Your task to perform on an android device: Turn on the flashlight Image 0: 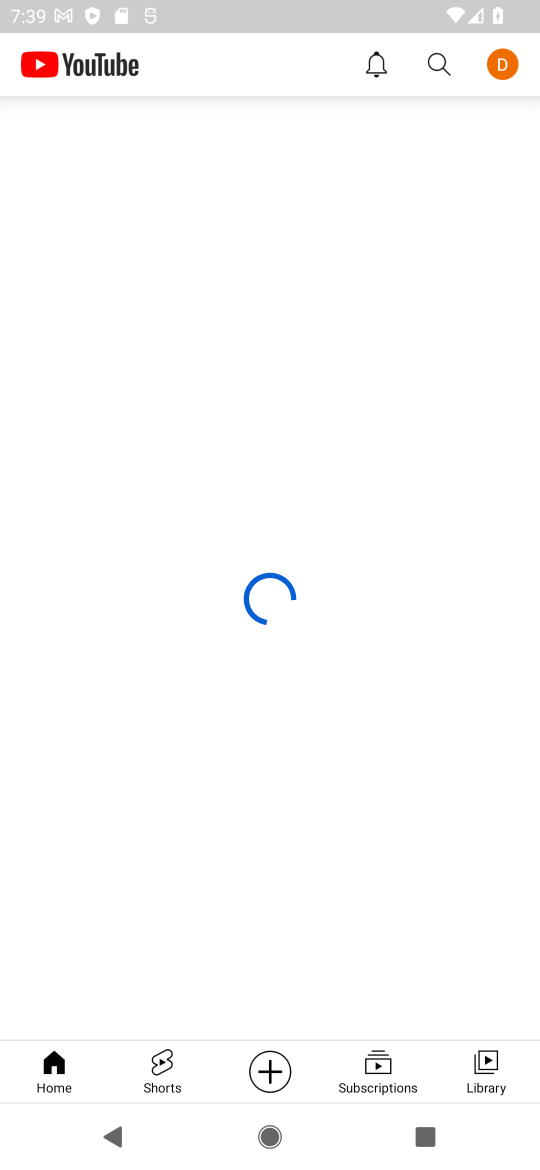
Step 0: press home button
Your task to perform on an android device: Turn on the flashlight Image 1: 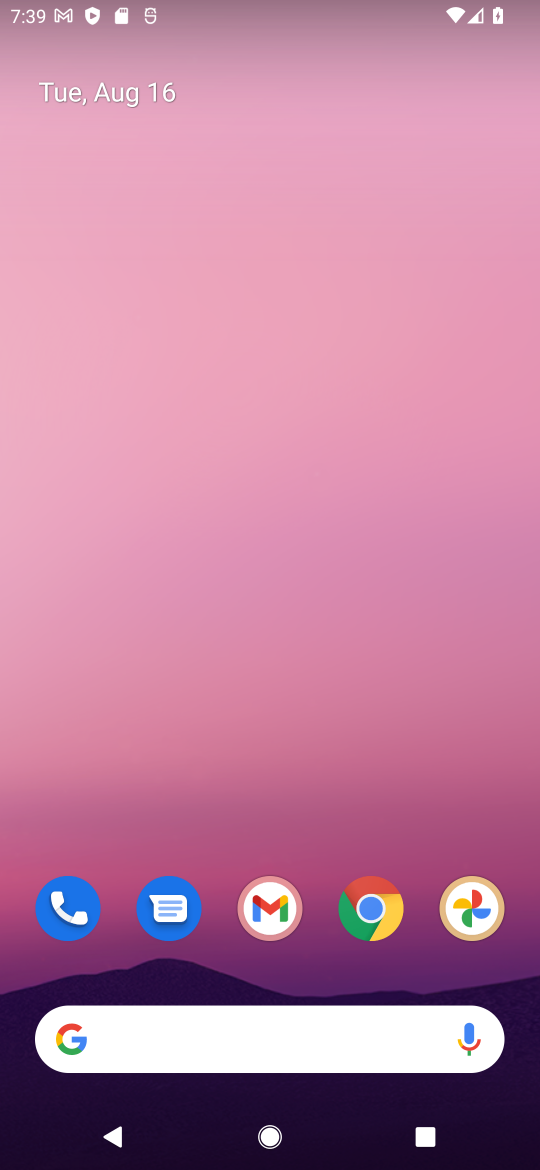
Step 1: drag from (220, 980) to (220, 180)
Your task to perform on an android device: Turn on the flashlight Image 2: 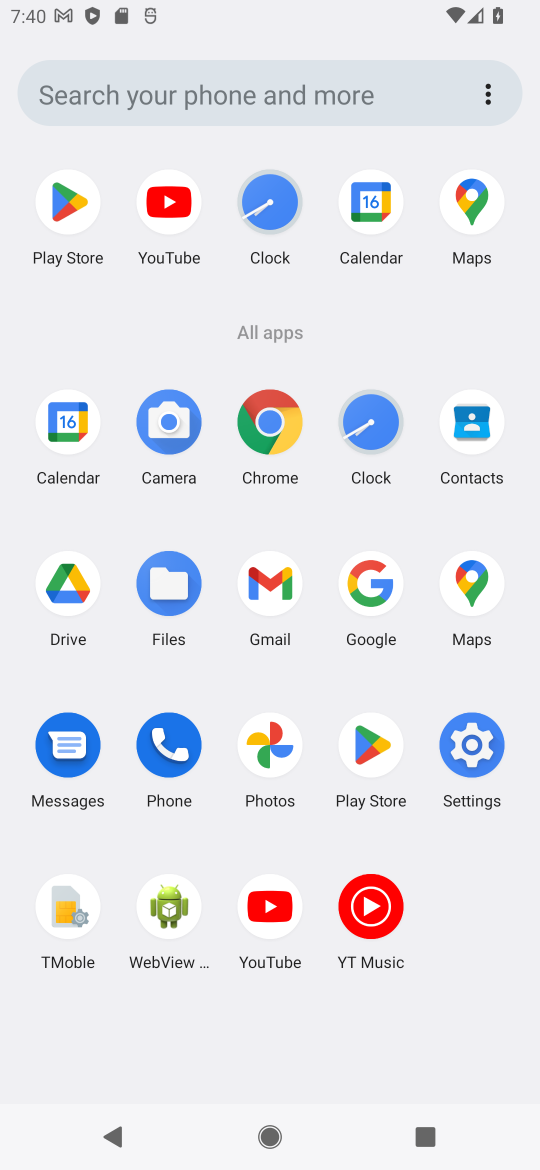
Step 2: click (472, 761)
Your task to perform on an android device: Turn on the flashlight Image 3: 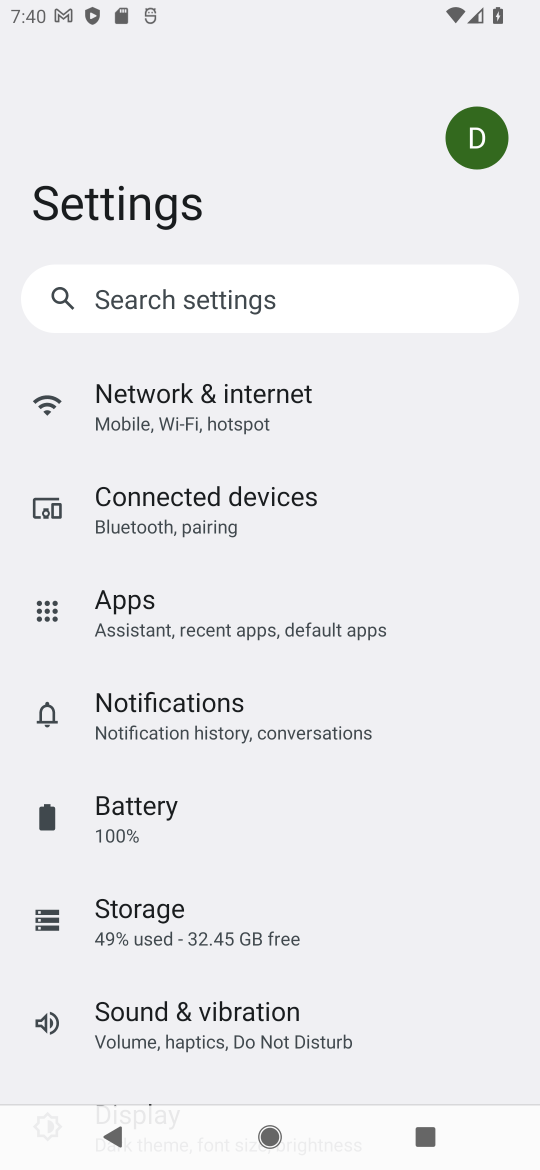
Step 3: click (472, 761)
Your task to perform on an android device: Turn on the flashlight Image 4: 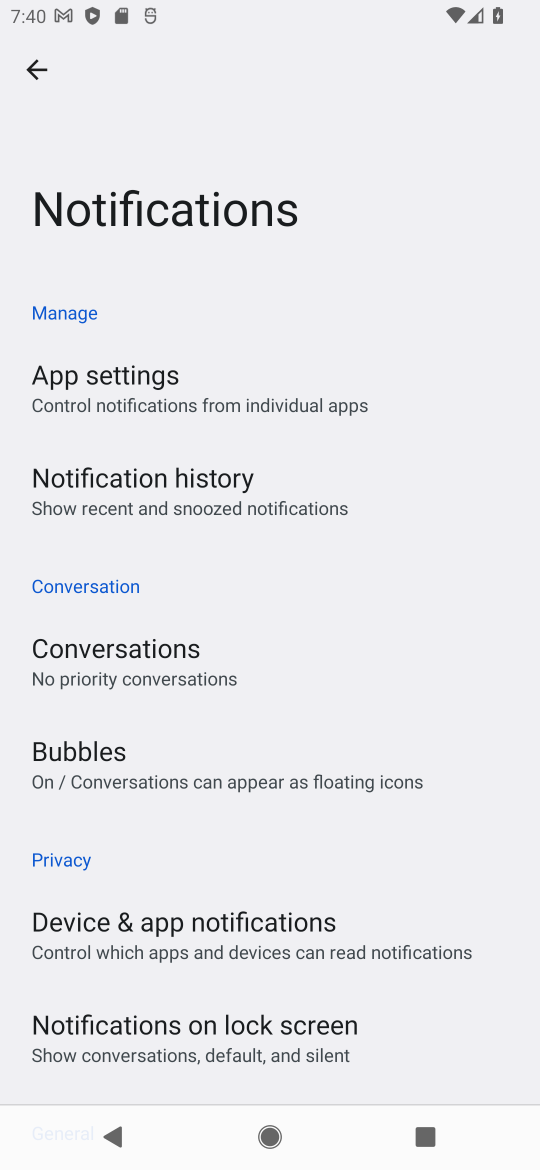
Step 4: task complete